Your task to perform on an android device: Is it going to rain tomorrow? Image 0: 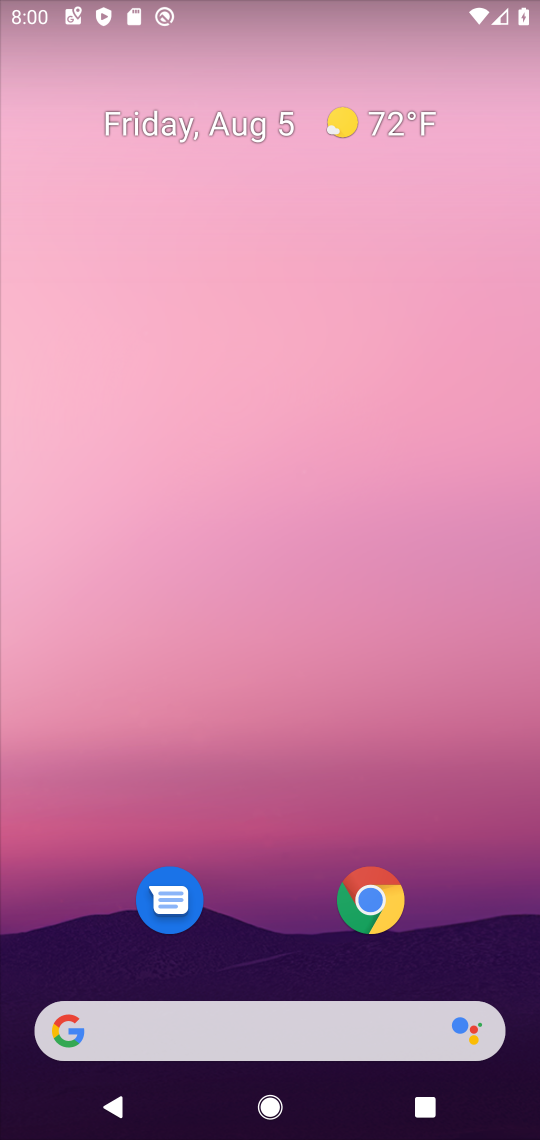
Step 0: drag from (273, 788) to (282, 358)
Your task to perform on an android device: Is it going to rain tomorrow? Image 1: 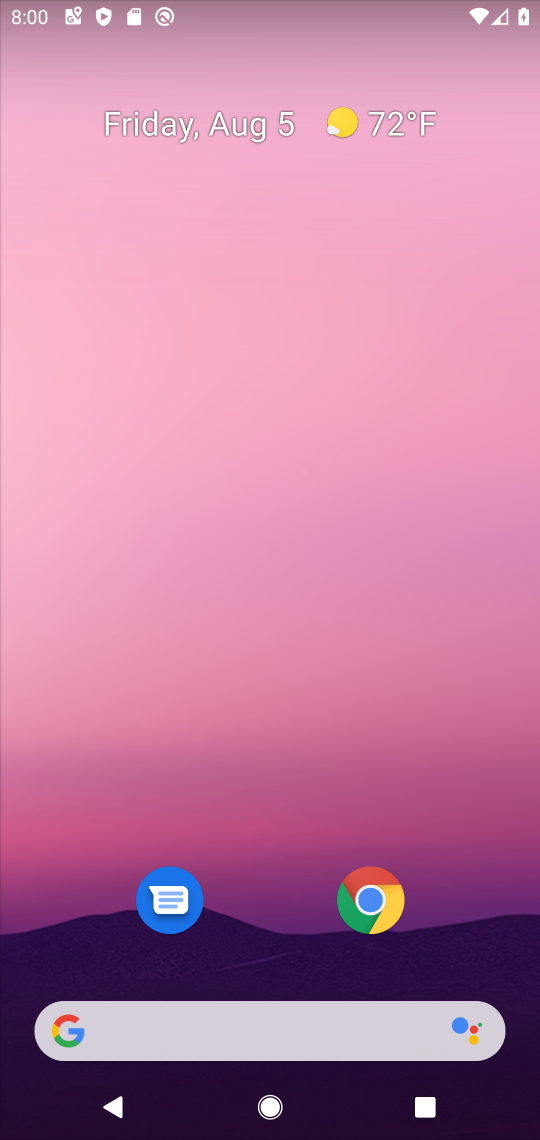
Step 1: drag from (283, 756) to (294, 366)
Your task to perform on an android device: Is it going to rain tomorrow? Image 2: 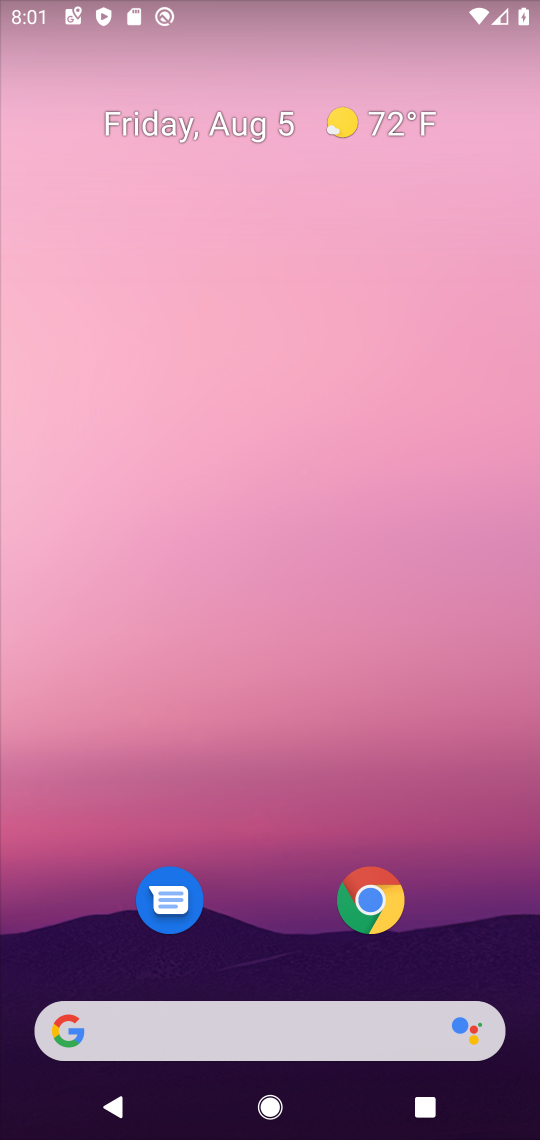
Step 2: drag from (243, 963) to (200, 507)
Your task to perform on an android device: Is it going to rain tomorrow? Image 3: 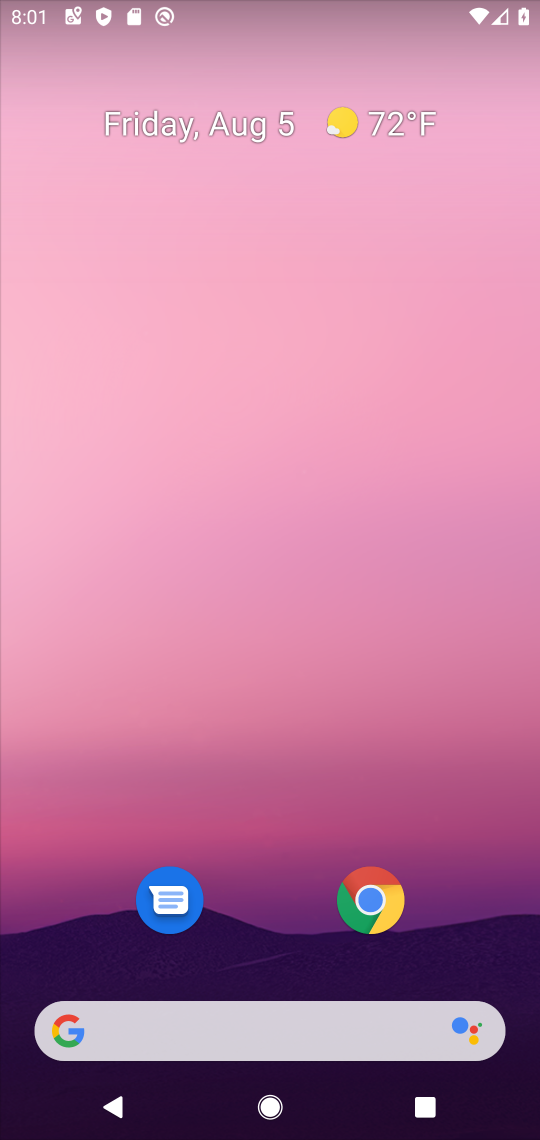
Step 3: drag from (213, 973) to (222, 187)
Your task to perform on an android device: Is it going to rain tomorrow? Image 4: 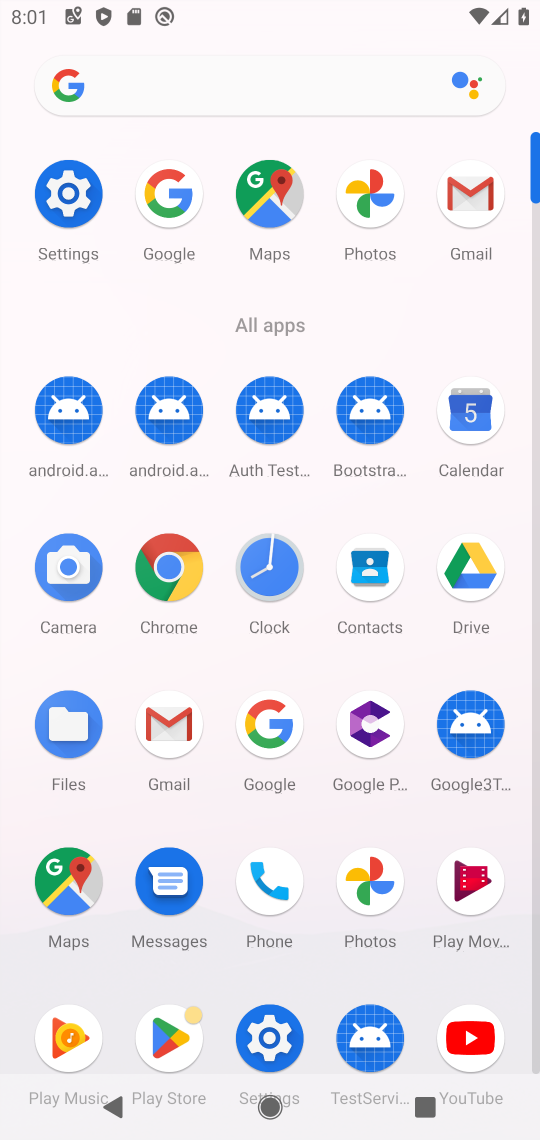
Step 4: click (235, 729)
Your task to perform on an android device: Is it going to rain tomorrow? Image 5: 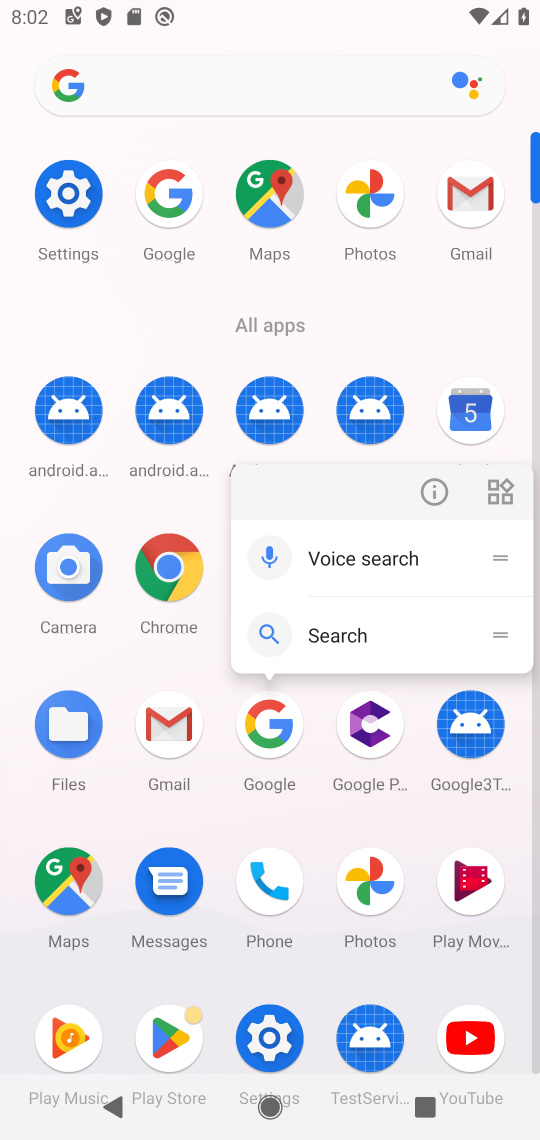
Step 5: click (143, 202)
Your task to perform on an android device: Is it going to rain tomorrow? Image 6: 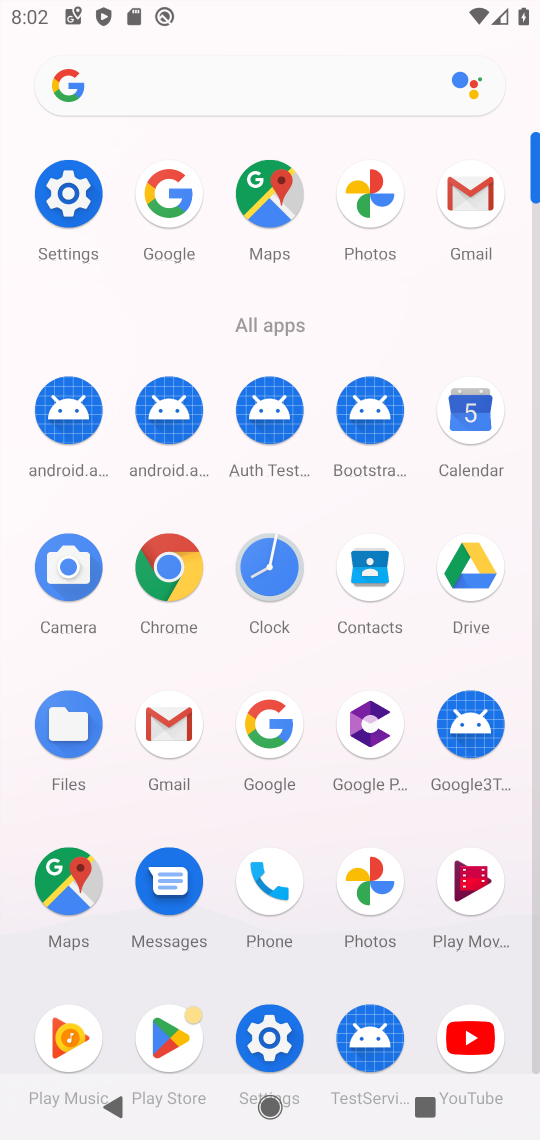
Step 6: click (155, 202)
Your task to perform on an android device: Is it going to rain tomorrow? Image 7: 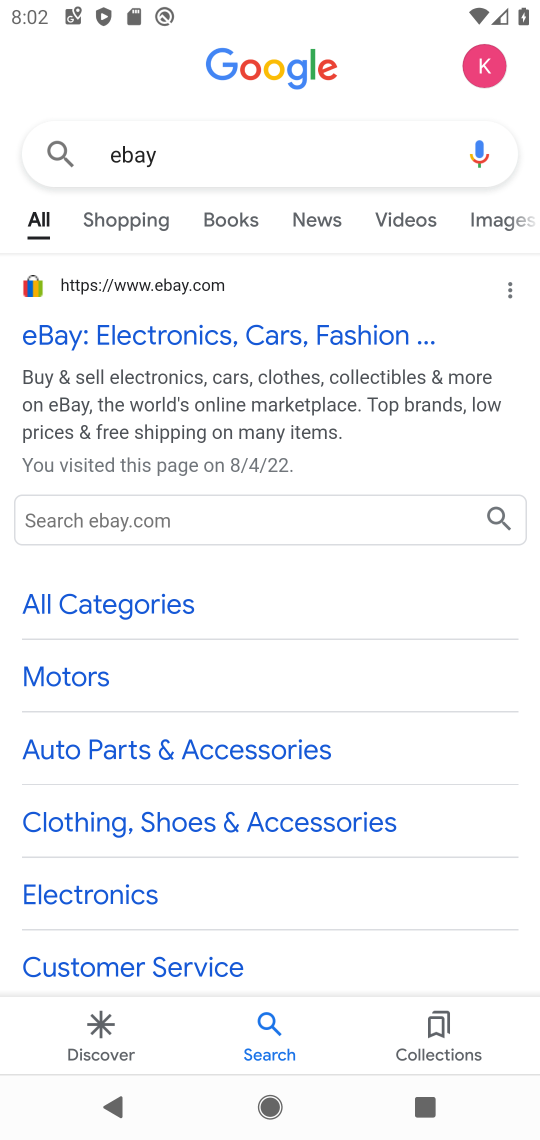
Step 7: click (186, 165)
Your task to perform on an android device: Is it going to rain tomorrow? Image 8: 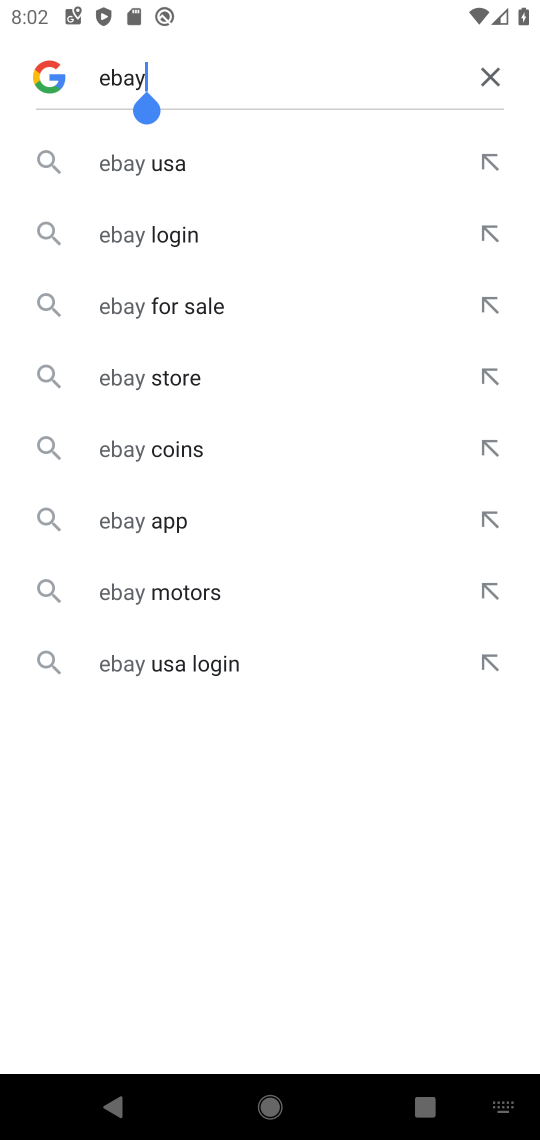
Step 8: click (496, 82)
Your task to perform on an android device: Is it going to rain tomorrow? Image 9: 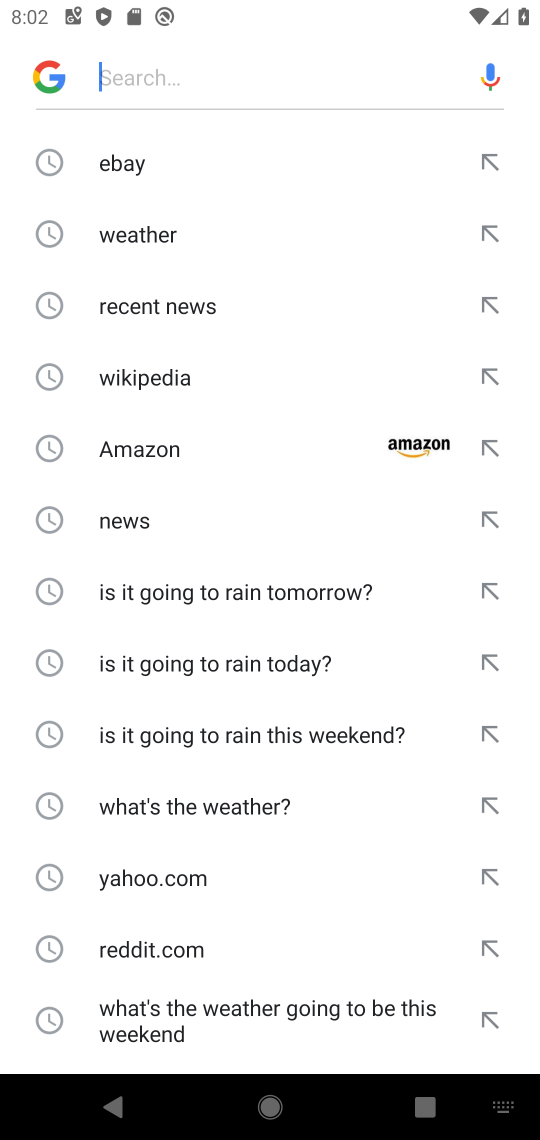
Step 9: click (200, 589)
Your task to perform on an android device: Is it going to rain tomorrow? Image 10: 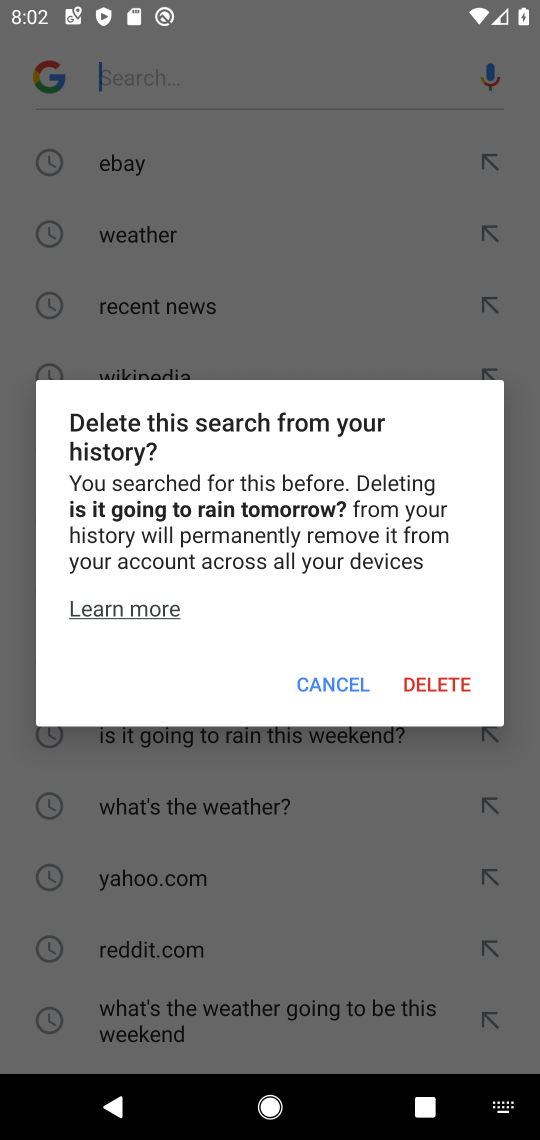
Step 10: click (324, 684)
Your task to perform on an android device: Is it going to rain tomorrow? Image 11: 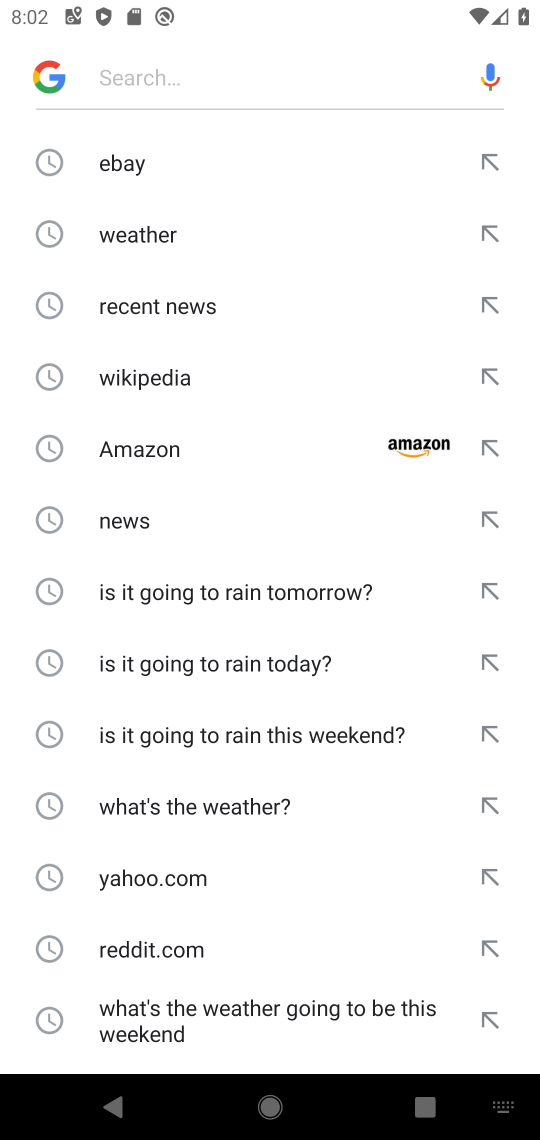
Step 11: click (191, 606)
Your task to perform on an android device: Is it going to rain tomorrow? Image 12: 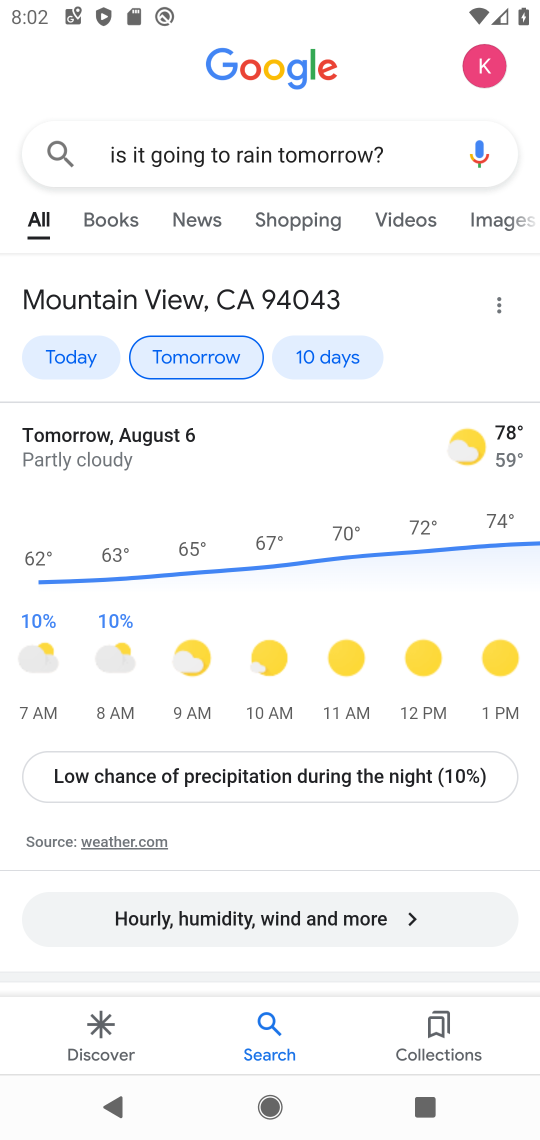
Step 12: task complete